Your task to perform on an android device: refresh tabs in the chrome app Image 0: 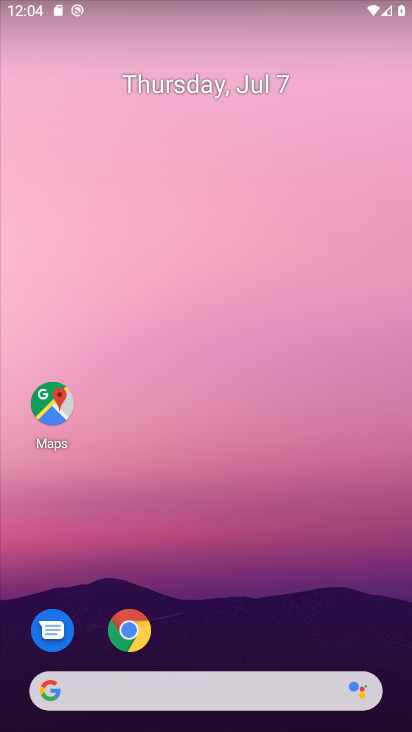
Step 0: drag from (222, 641) to (231, 331)
Your task to perform on an android device: refresh tabs in the chrome app Image 1: 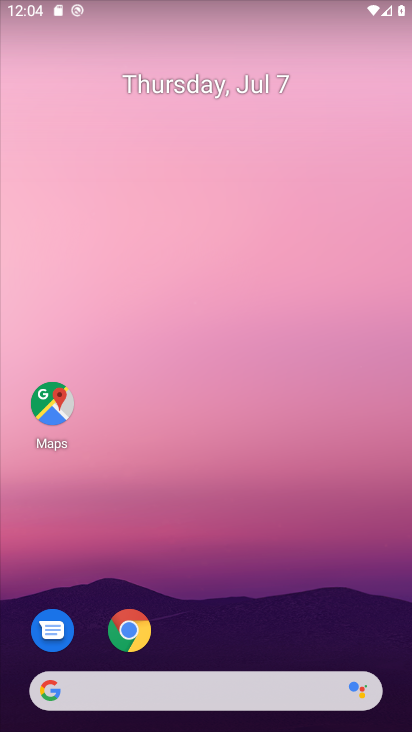
Step 1: drag from (278, 645) to (283, 147)
Your task to perform on an android device: refresh tabs in the chrome app Image 2: 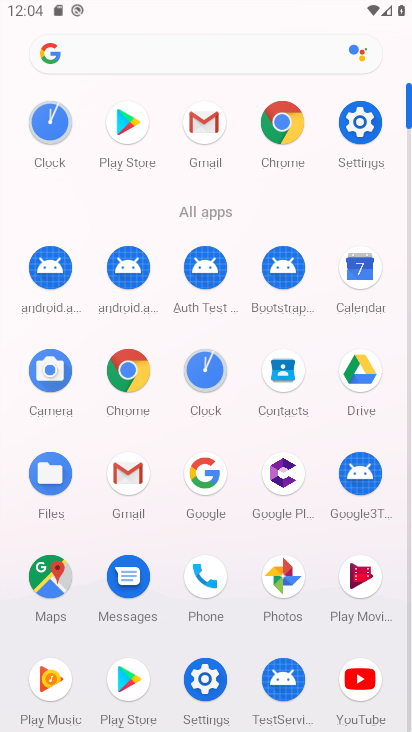
Step 2: click (275, 106)
Your task to perform on an android device: refresh tabs in the chrome app Image 3: 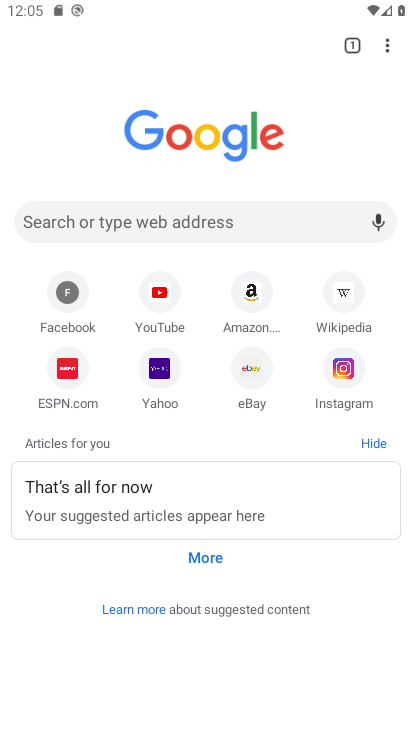
Step 3: click (372, 37)
Your task to perform on an android device: refresh tabs in the chrome app Image 4: 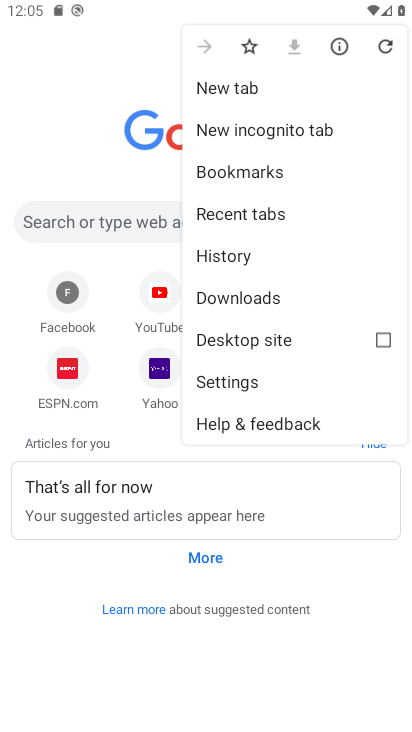
Step 4: click (379, 40)
Your task to perform on an android device: refresh tabs in the chrome app Image 5: 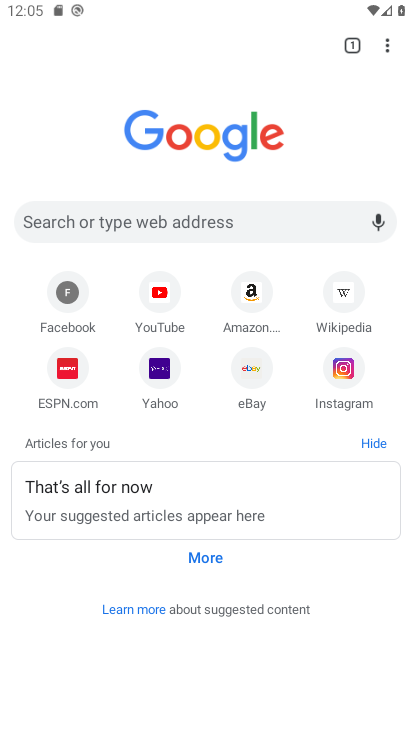
Step 5: task complete